Your task to perform on an android device: open chrome privacy settings Image 0: 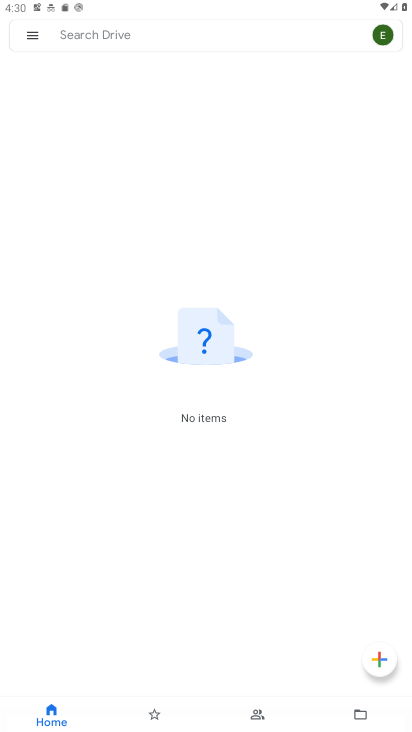
Step 0: press home button
Your task to perform on an android device: open chrome privacy settings Image 1: 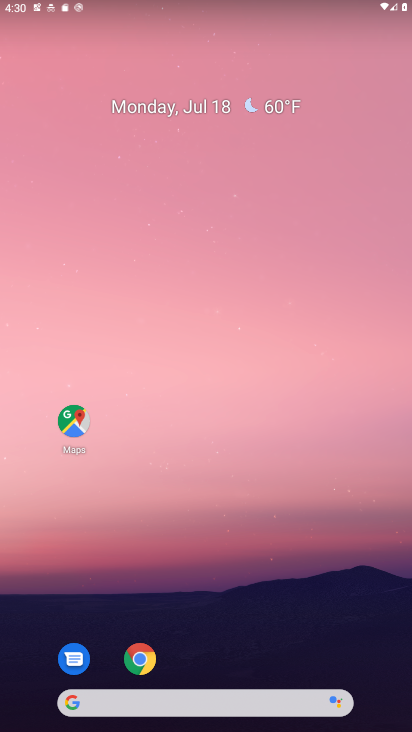
Step 1: drag from (254, 623) to (293, 1)
Your task to perform on an android device: open chrome privacy settings Image 2: 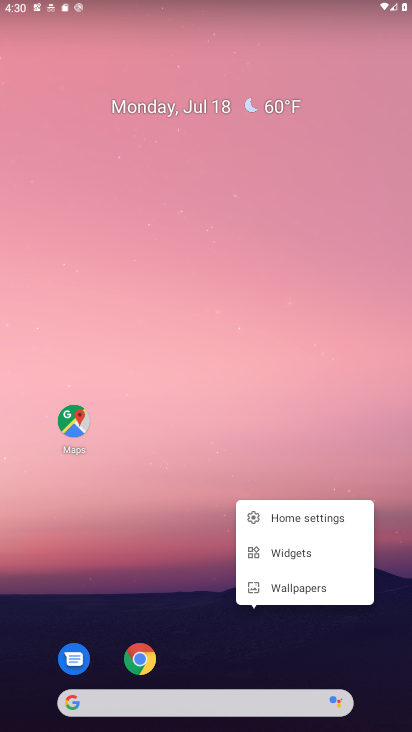
Step 2: click (206, 597)
Your task to perform on an android device: open chrome privacy settings Image 3: 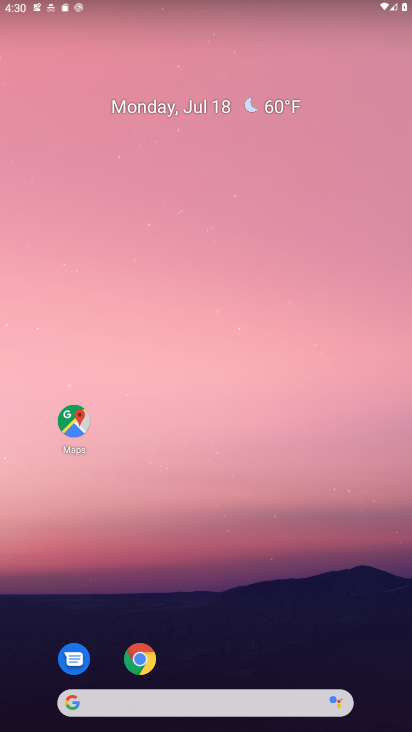
Step 3: drag from (218, 674) to (273, 59)
Your task to perform on an android device: open chrome privacy settings Image 4: 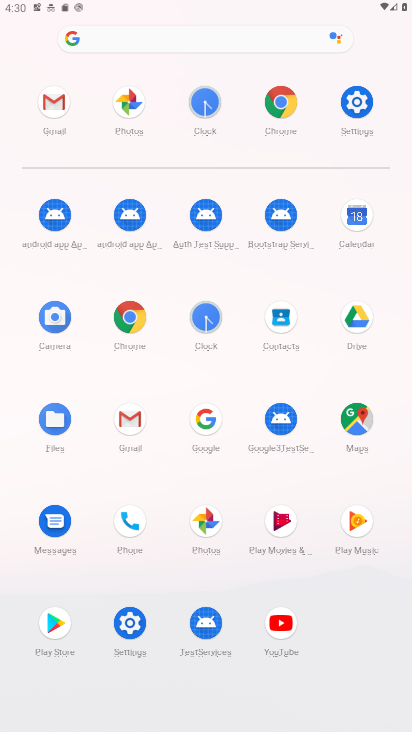
Step 4: click (126, 315)
Your task to perform on an android device: open chrome privacy settings Image 5: 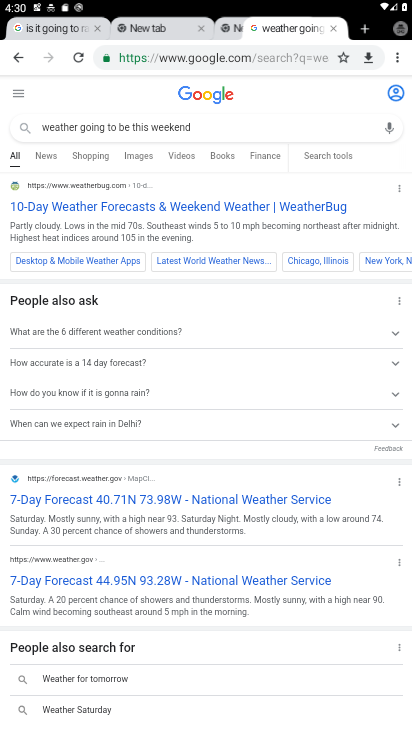
Step 5: drag from (399, 57) to (278, 355)
Your task to perform on an android device: open chrome privacy settings Image 6: 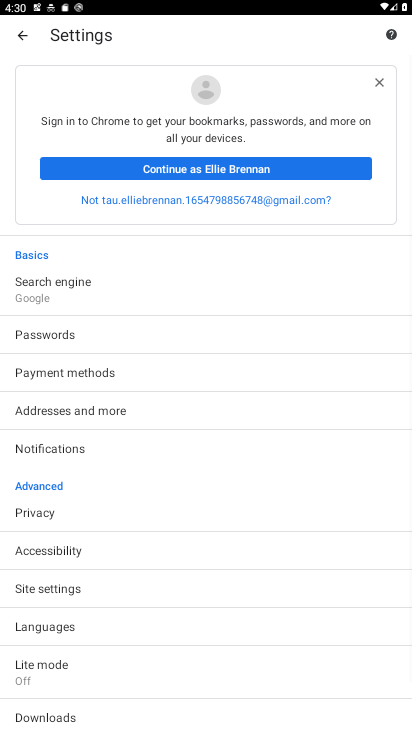
Step 6: click (30, 522)
Your task to perform on an android device: open chrome privacy settings Image 7: 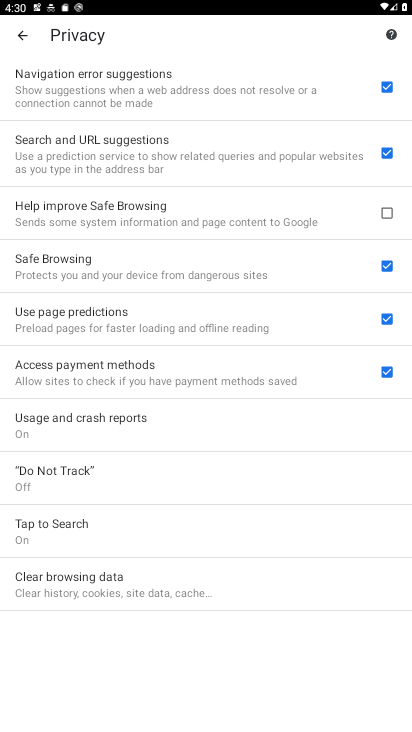
Step 7: task complete